Your task to perform on an android device: Search for Mexican restaurants on Maps Image 0: 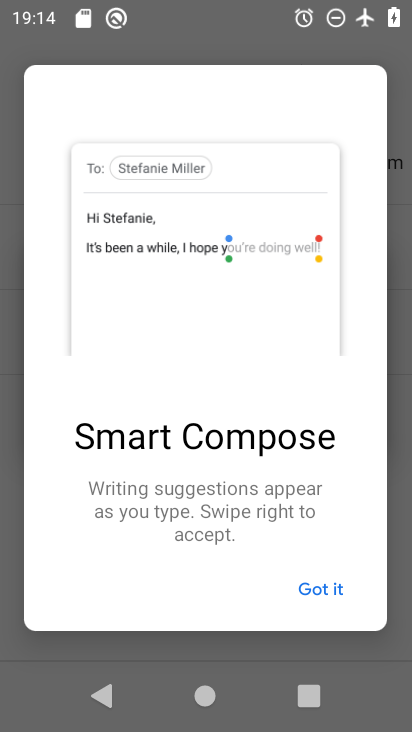
Step 0: press home button
Your task to perform on an android device: Search for Mexican restaurants on Maps Image 1: 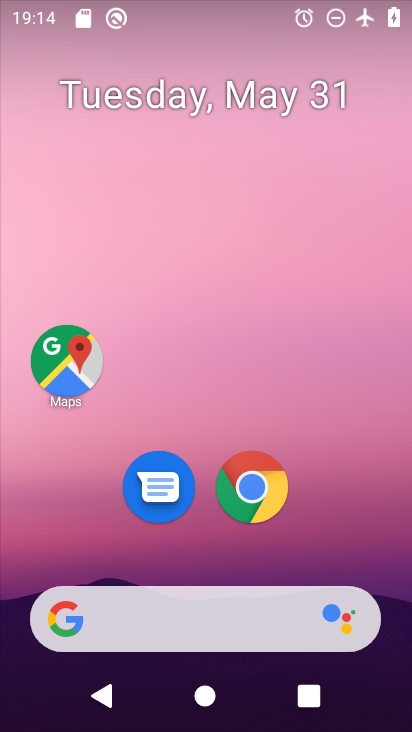
Step 1: click (47, 375)
Your task to perform on an android device: Search for Mexican restaurants on Maps Image 2: 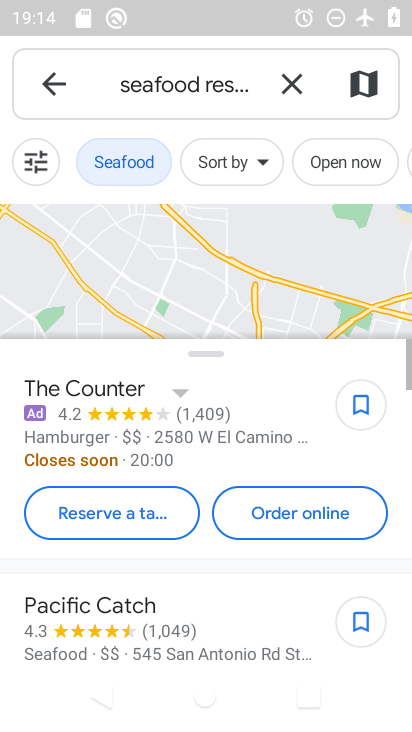
Step 2: click (281, 88)
Your task to perform on an android device: Search for Mexican restaurants on Maps Image 3: 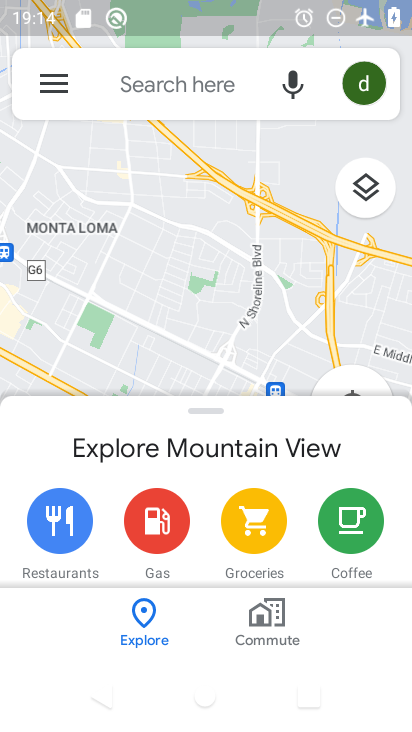
Step 3: click (199, 82)
Your task to perform on an android device: Search for Mexican restaurants on Maps Image 4: 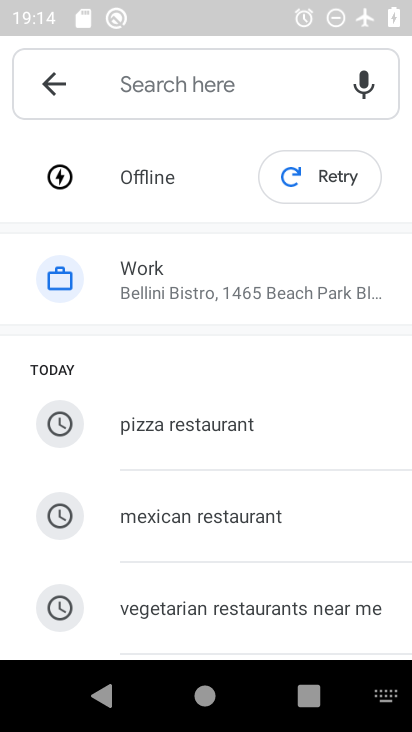
Step 4: click (194, 511)
Your task to perform on an android device: Search for Mexican restaurants on Maps Image 5: 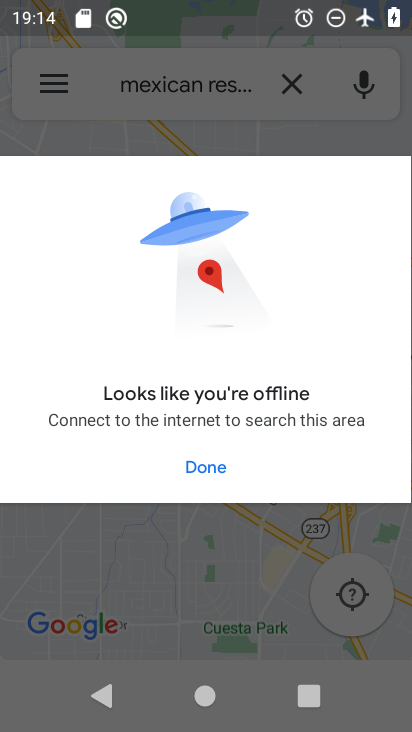
Step 5: click (201, 469)
Your task to perform on an android device: Search for Mexican restaurants on Maps Image 6: 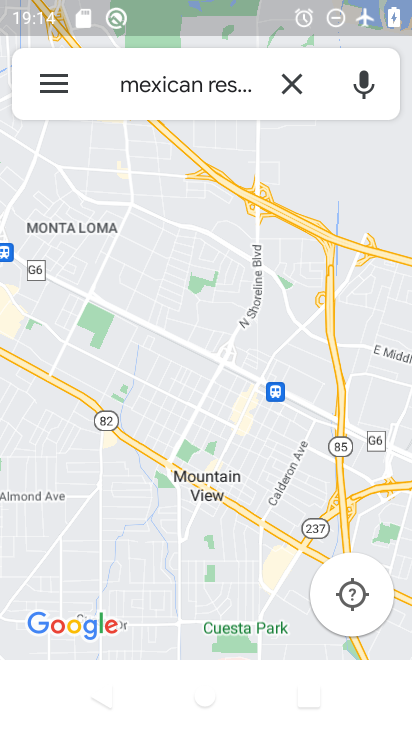
Step 6: task complete